Your task to perform on an android device: turn off notifications settings in the gmail app Image 0: 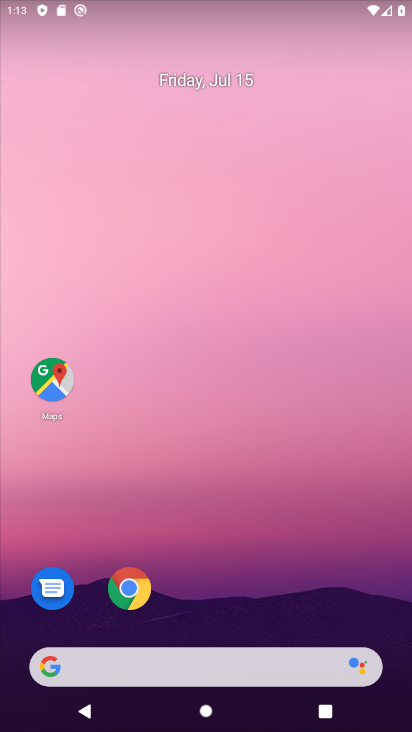
Step 0: drag from (233, 582) to (342, 18)
Your task to perform on an android device: turn off notifications settings in the gmail app Image 1: 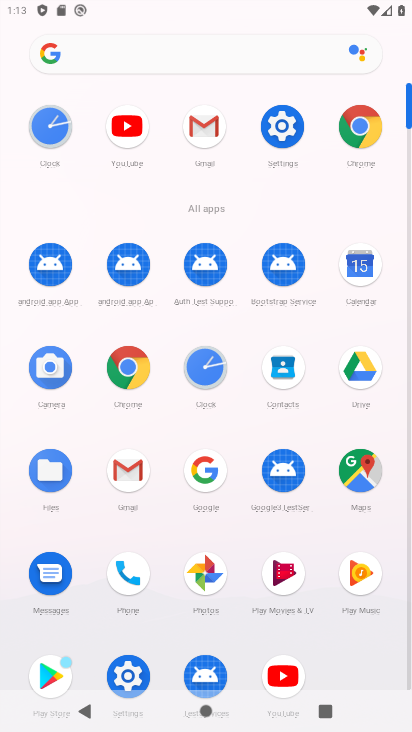
Step 1: click (201, 139)
Your task to perform on an android device: turn off notifications settings in the gmail app Image 2: 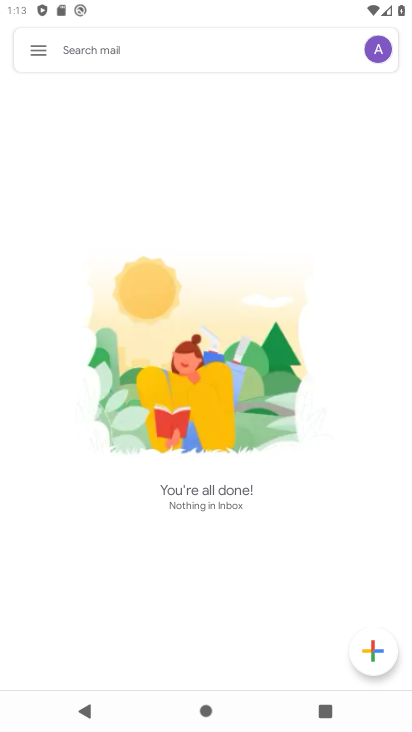
Step 2: click (28, 47)
Your task to perform on an android device: turn off notifications settings in the gmail app Image 3: 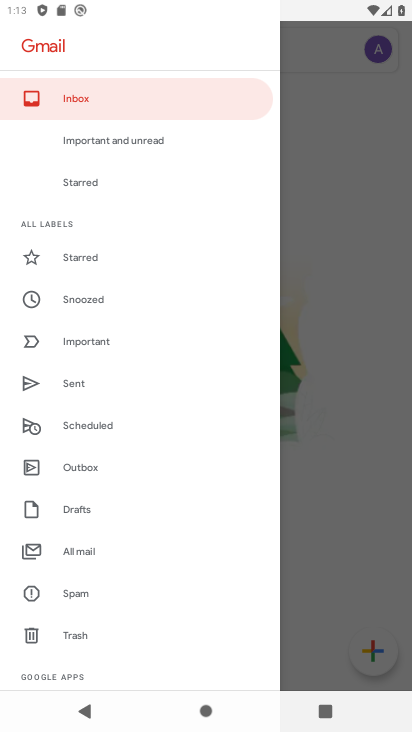
Step 3: drag from (153, 556) to (153, 370)
Your task to perform on an android device: turn off notifications settings in the gmail app Image 4: 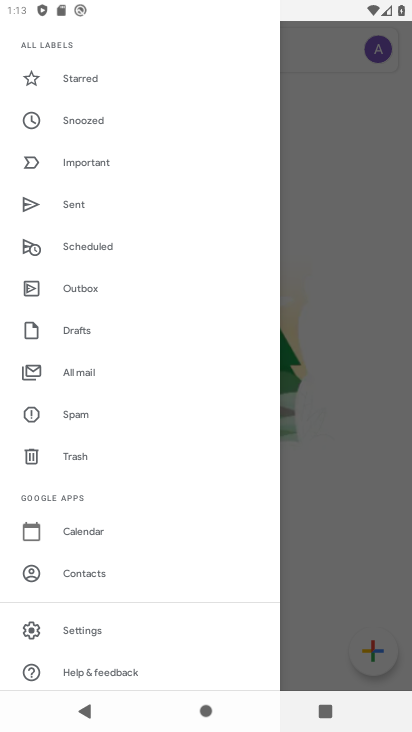
Step 4: click (123, 632)
Your task to perform on an android device: turn off notifications settings in the gmail app Image 5: 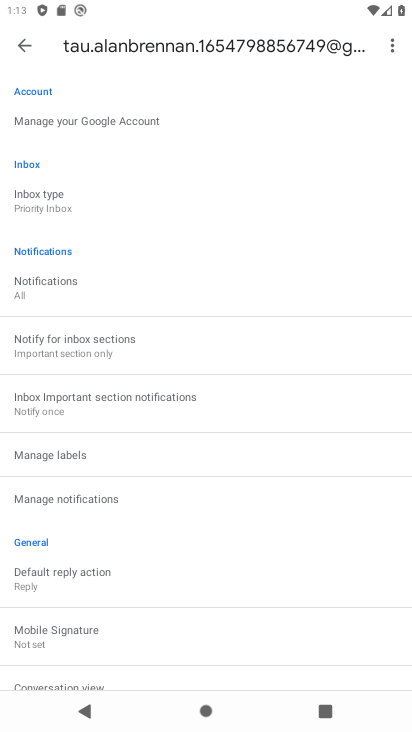
Step 5: click (94, 500)
Your task to perform on an android device: turn off notifications settings in the gmail app Image 6: 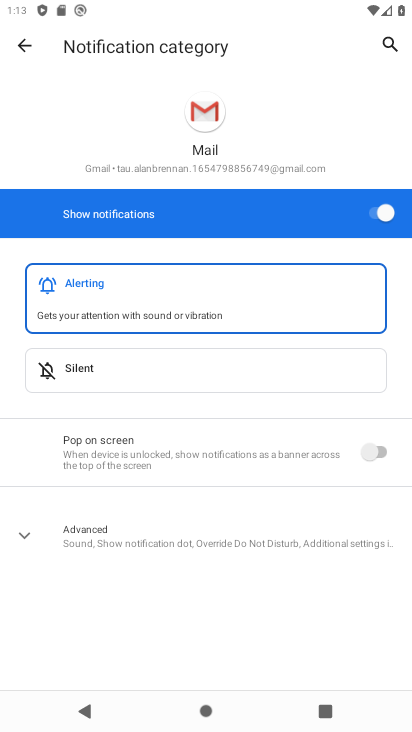
Step 6: click (374, 213)
Your task to perform on an android device: turn off notifications settings in the gmail app Image 7: 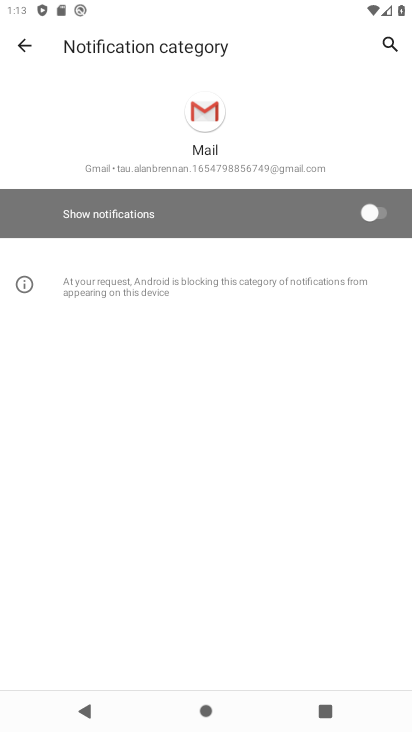
Step 7: task complete